Your task to perform on an android device: Set the phone to "Do not disturb". Image 0: 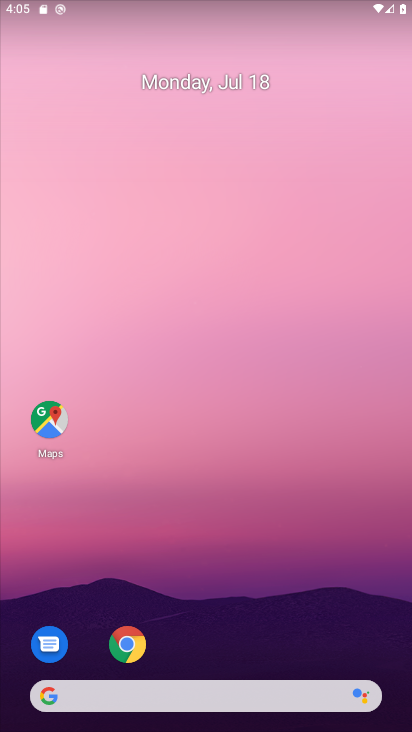
Step 0: drag from (258, 671) to (267, 203)
Your task to perform on an android device: Set the phone to "Do not disturb". Image 1: 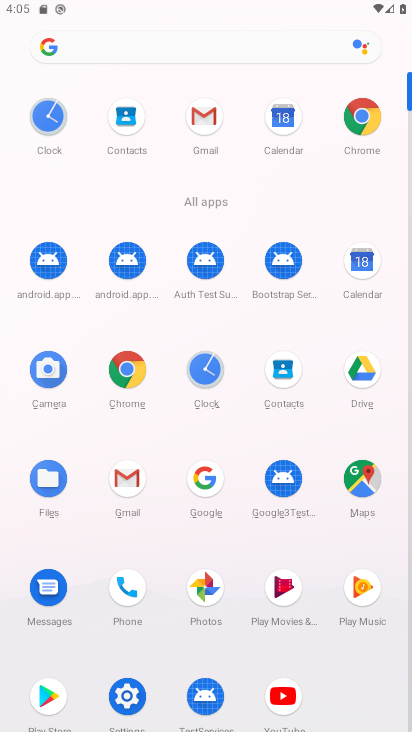
Step 1: click (127, 690)
Your task to perform on an android device: Set the phone to "Do not disturb". Image 2: 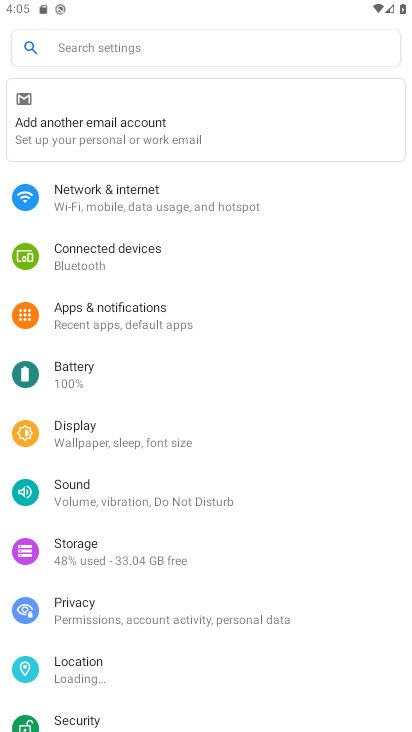
Step 2: click (143, 503)
Your task to perform on an android device: Set the phone to "Do not disturb". Image 3: 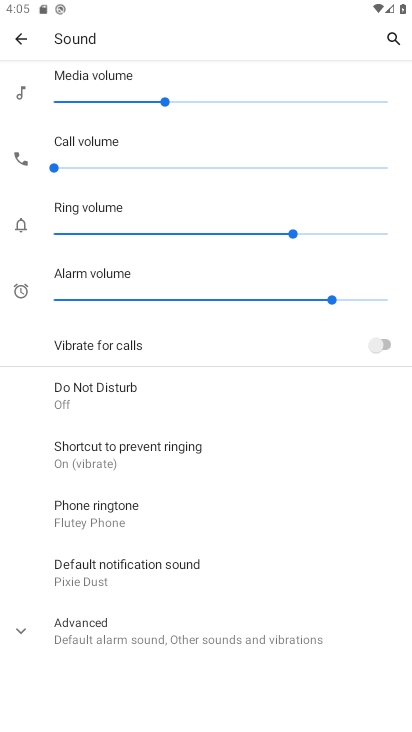
Step 3: click (109, 389)
Your task to perform on an android device: Set the phone to "Do not disturb". Image 4: 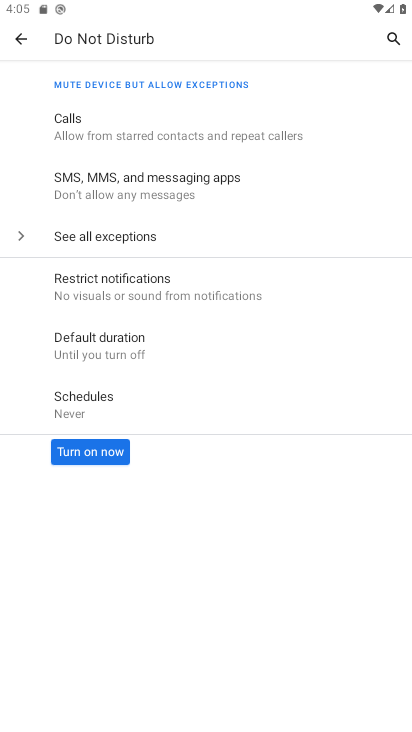
Step 4: click (116, 448)
Your task to perform on an android device: Set the phone to "Do not disturb". Image 5: 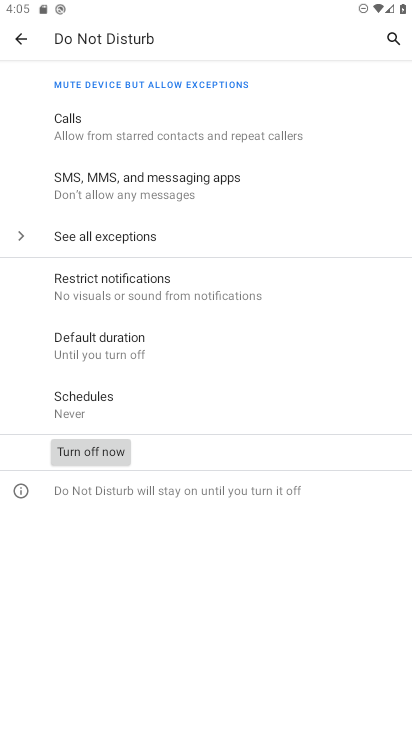
Step 5: task complete